Your task to perform on an android device: open a new tab in the chrome app Image 0: 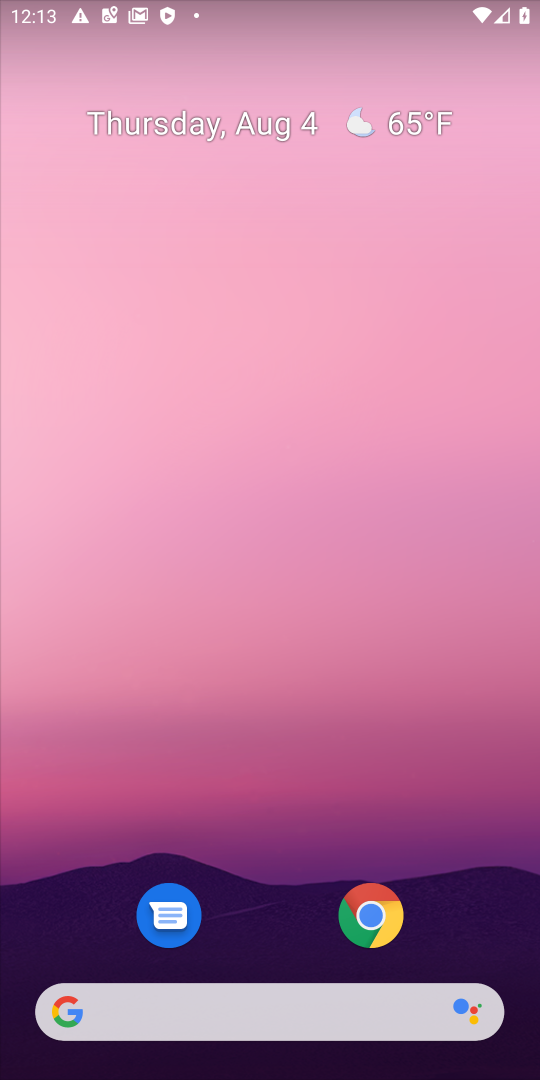
Step 0: click (382, 900)
Your task to perform on an android device: open a new tab in the chrome app Image 1: 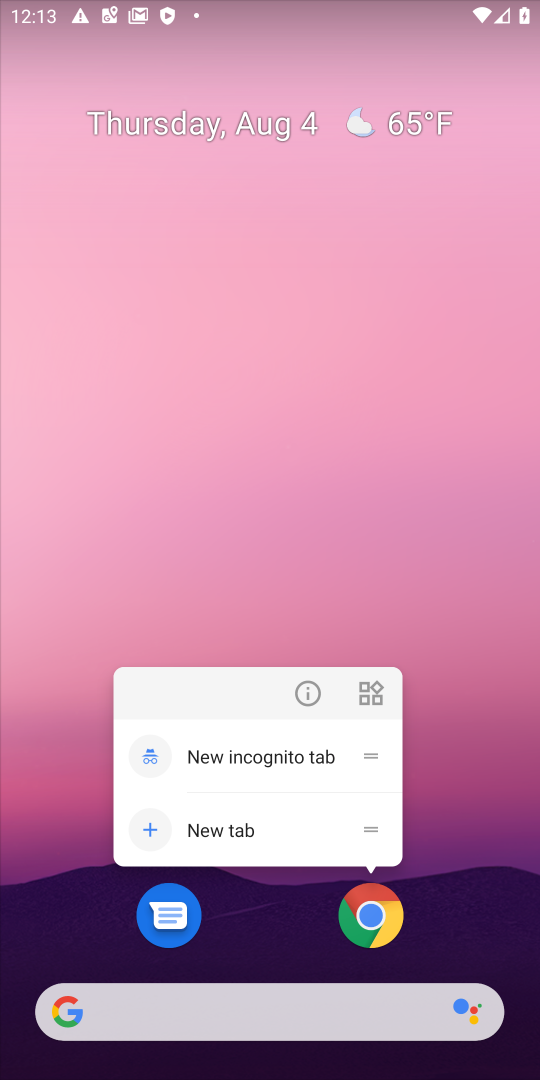
Step 1: click (238, 823)
Your task to perform on an android device: open a new tab in the chrome app Image 2: 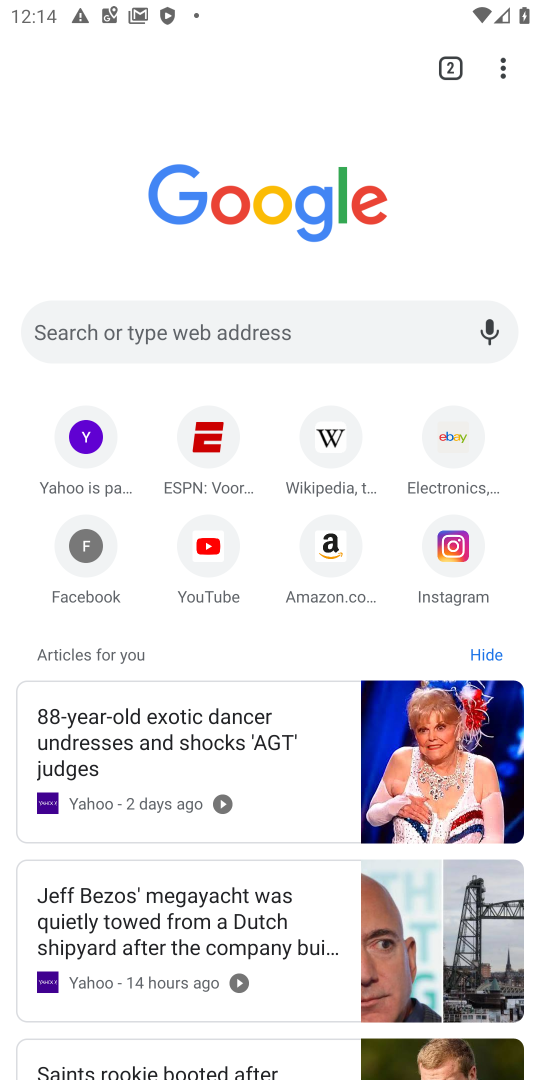
Step 2: task complete